Your task to perform on an android device: check battery use Image 0: 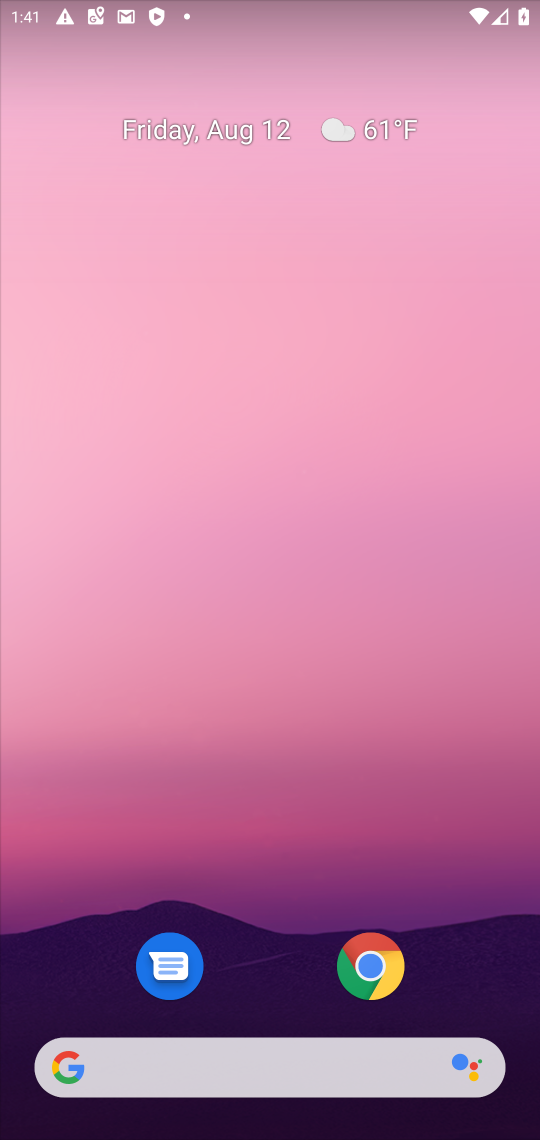
Step 0: press home button
Your task to perform on an android device: check battery use Image 1: 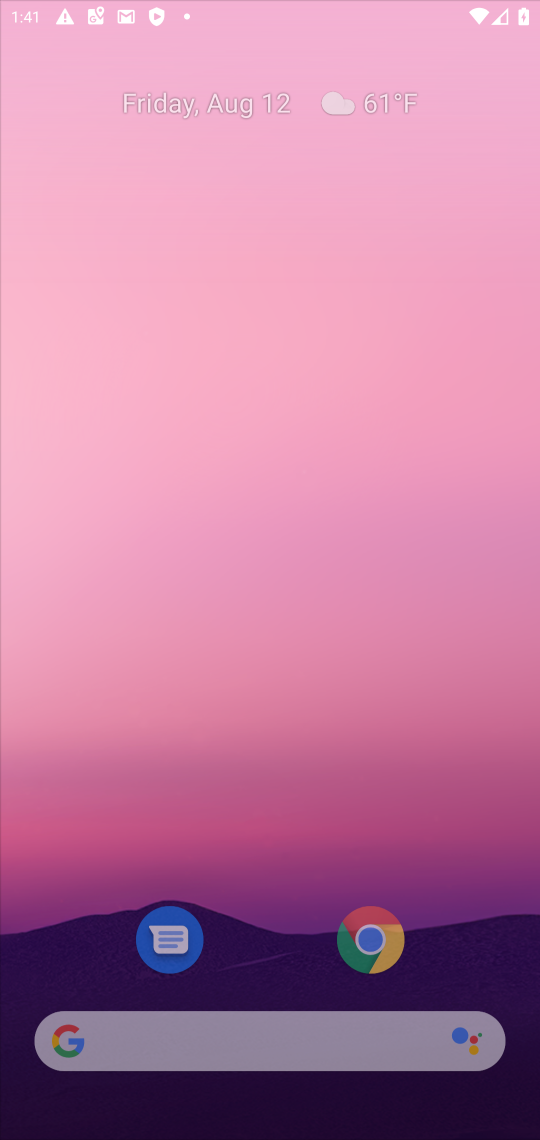
Step 1: press home button
Your task to perform on an android device: check battery use Image 2: 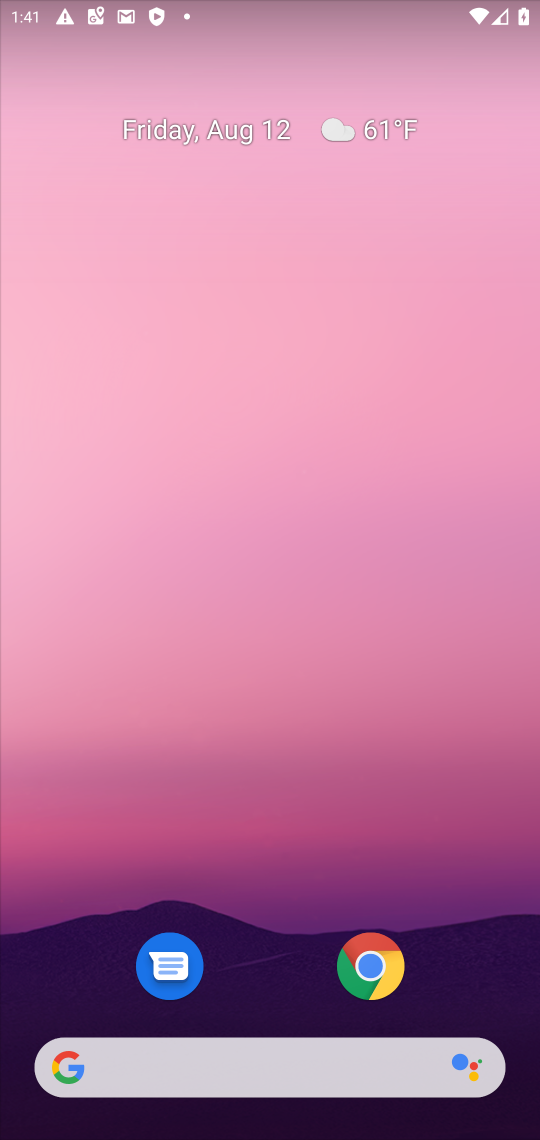
Step 2: press home button
Your task to perform on an android device: check battery use Image 3: 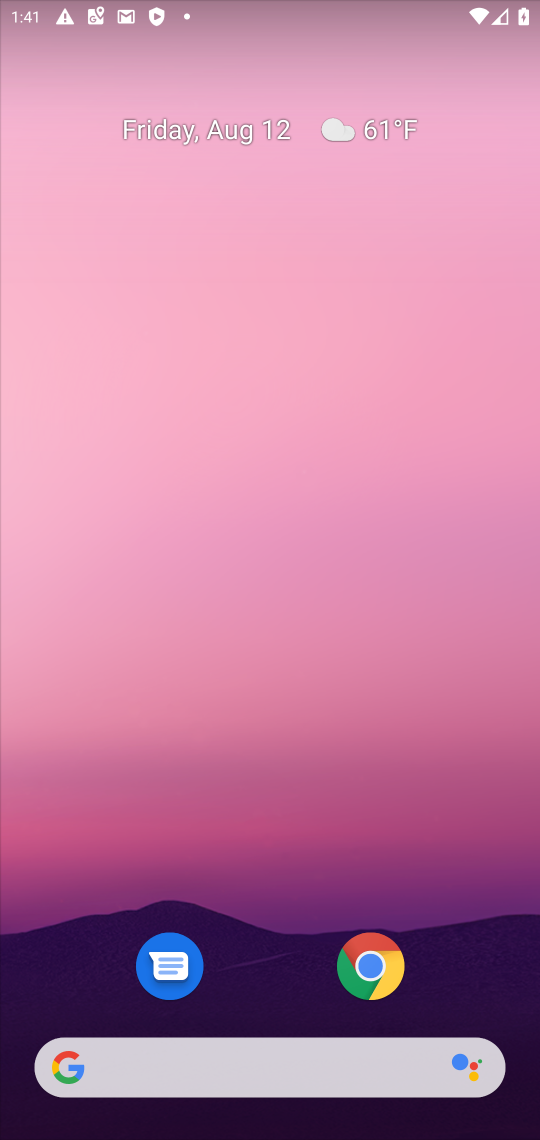
Step 3: drag from (249, 889) to (383, 209)
Your task to perform on an android device: check battery use Image 4: 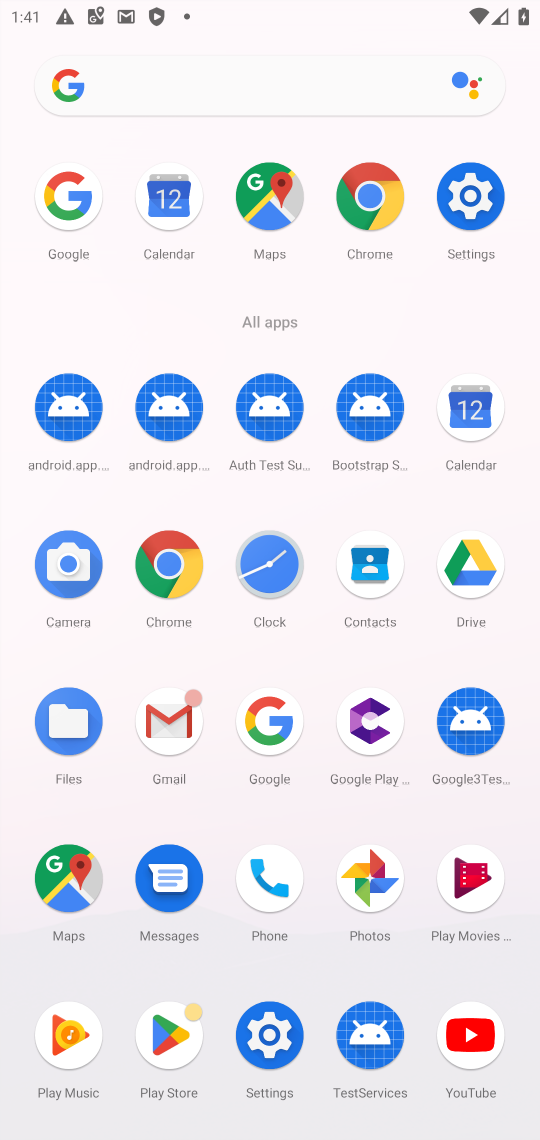
Step 4: click (256, 1035)
Your task to perform on an android device: check battery use Image 5: 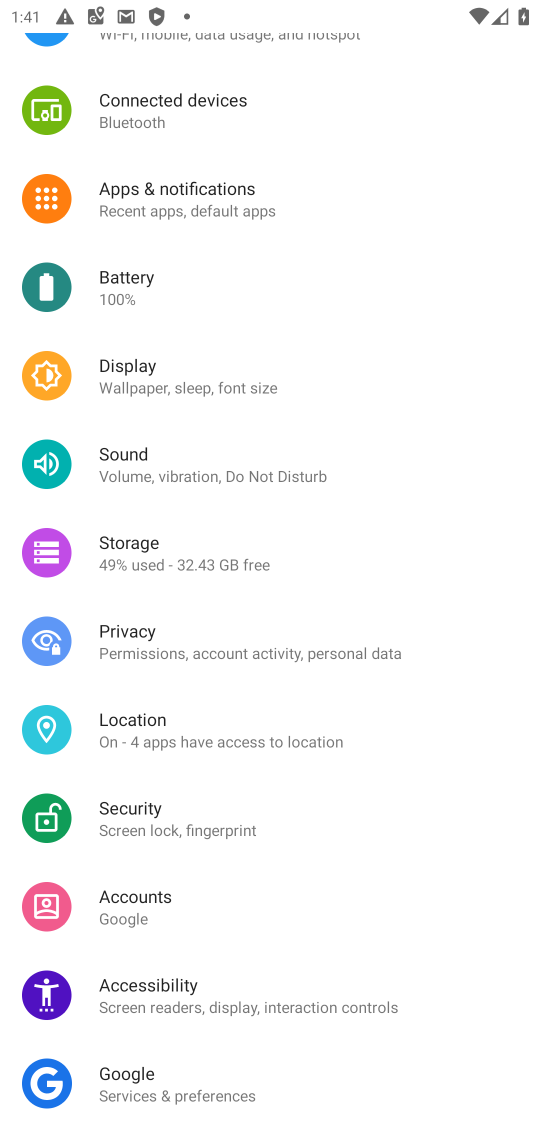
Step 5: click (194, 278)
Your task to perform on an android device: check battery use Image 6: 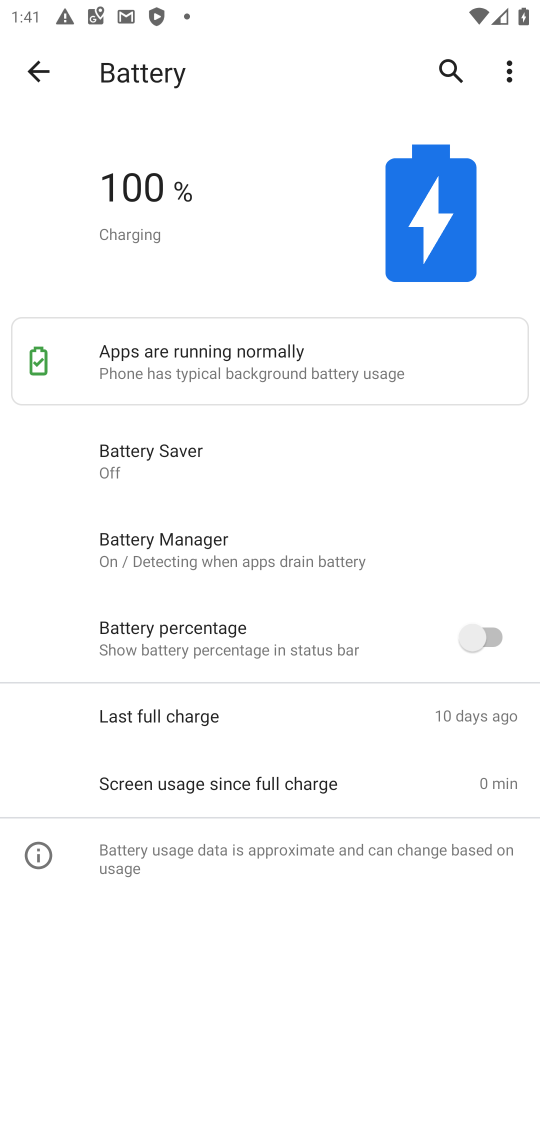
Step 6: click (507, 54)
Your task to perform on an android device: check battery use Image 7: 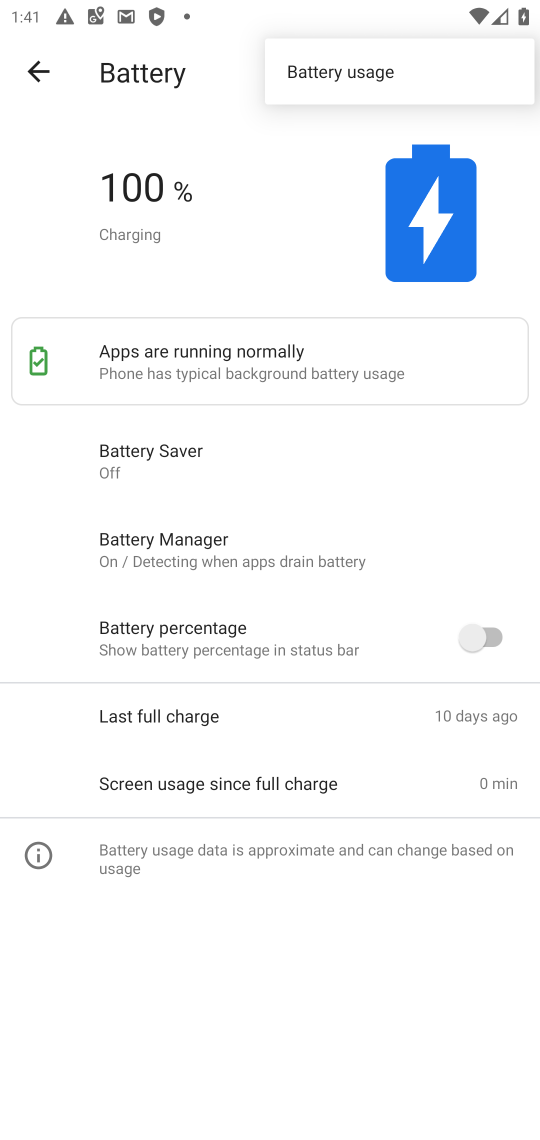
Step 7: click (420, 81)
Your task to perform on an android device: check battery use Image 8: 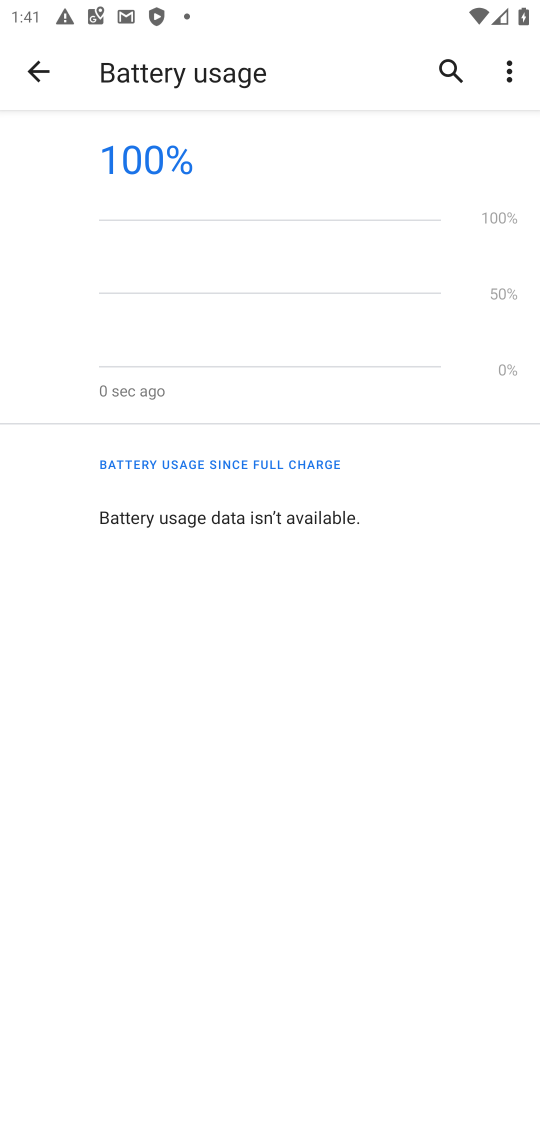
Step 8: task complete